Your task to perform on an android device: refresh tabs in the chrome app Image 0: 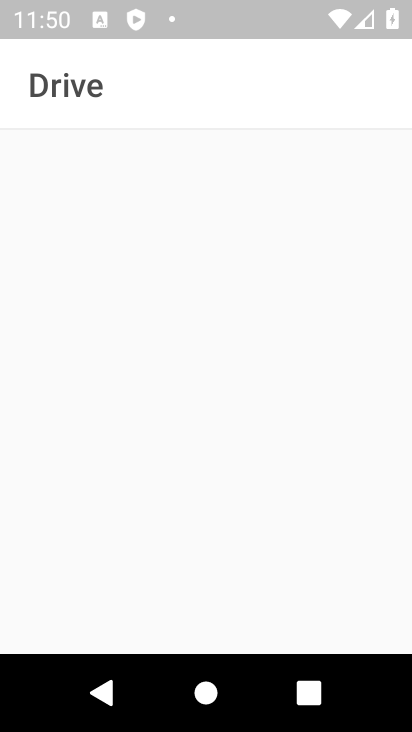
Step 0: press home button
Your task to perform on an android device: refresh tabs in the chrome app Image 1: 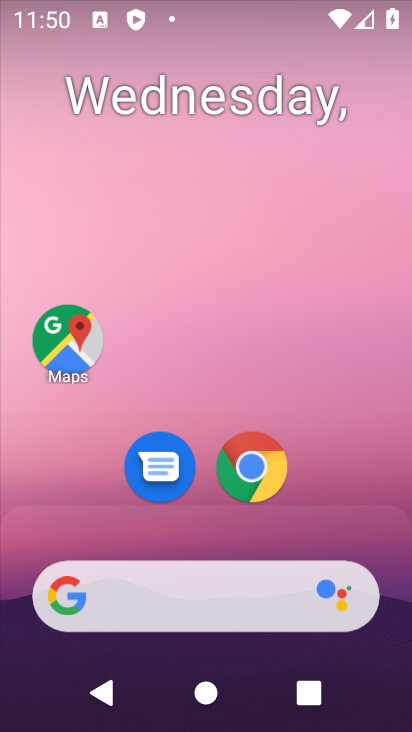
Step 1: click (244, 469)
Your task to perform on an android device: refresh tabs in the chrome app Image 2: 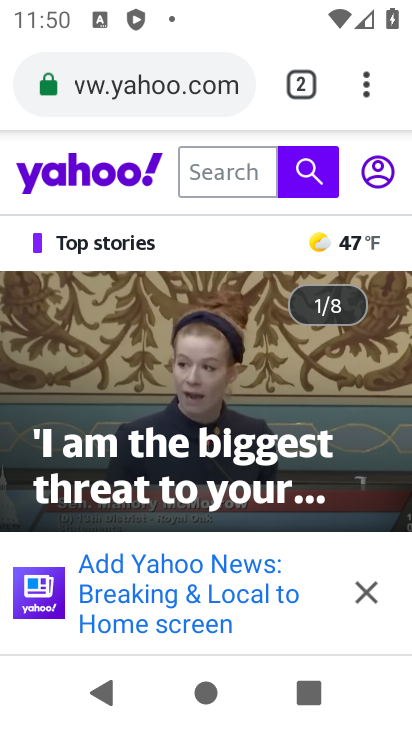
Step 2: task complete